Your task to perform on an android device: check data usage Image 0: 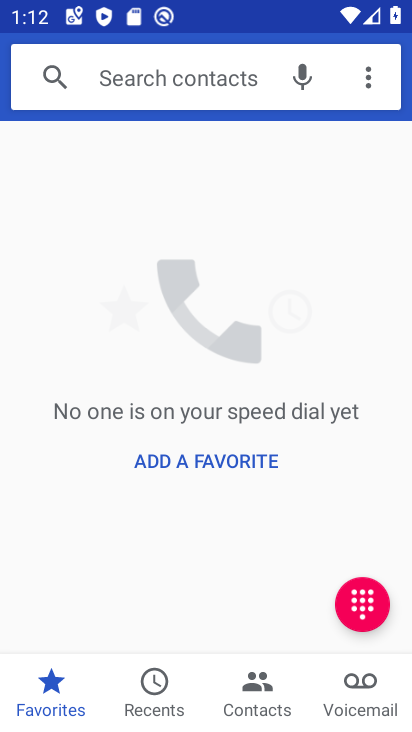
Step 0: press home button
Your task to perform on an android device: check data usage Image 1: 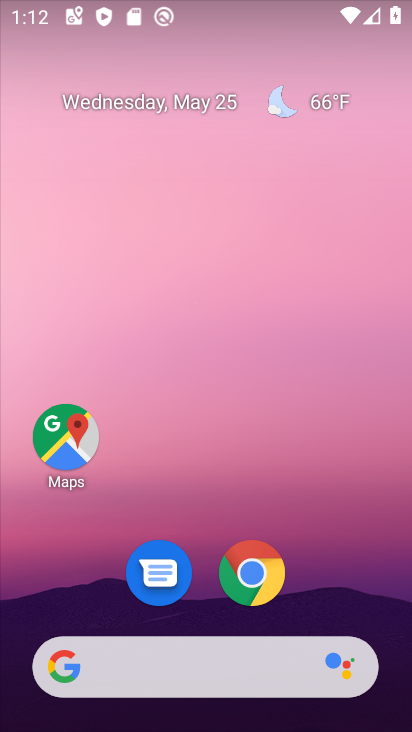
Step 1: drag from (377, 614) to (334, 61)
Your task to perform on an android device: check data usage Image 2: 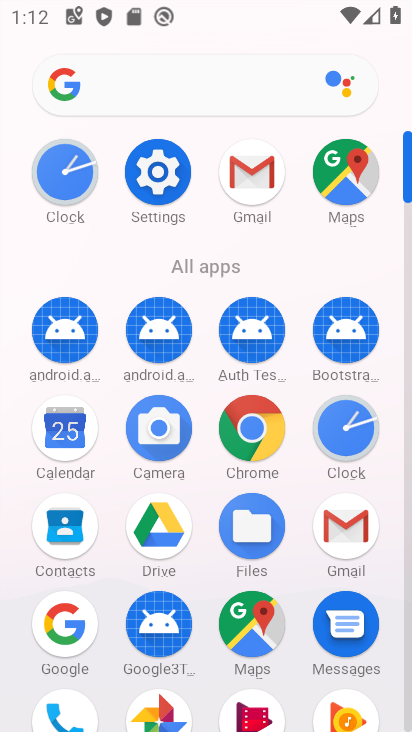
Step 2: click (404, 704)
Your task to perform on an android device: check data usage Image 3: 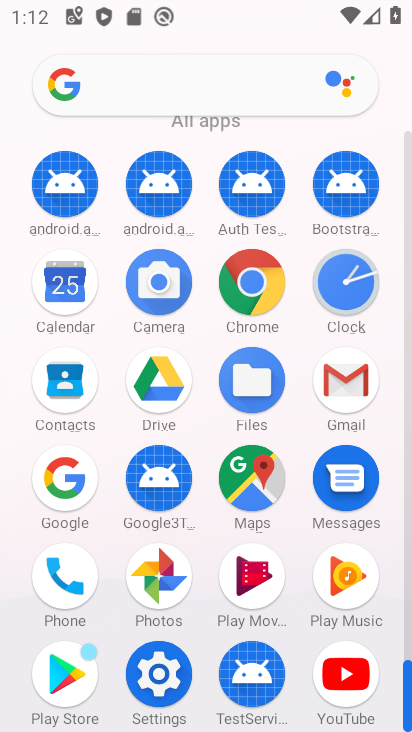
Step 3: click (162, 671)
Your task to perform on an android device: check data usage Image 4: 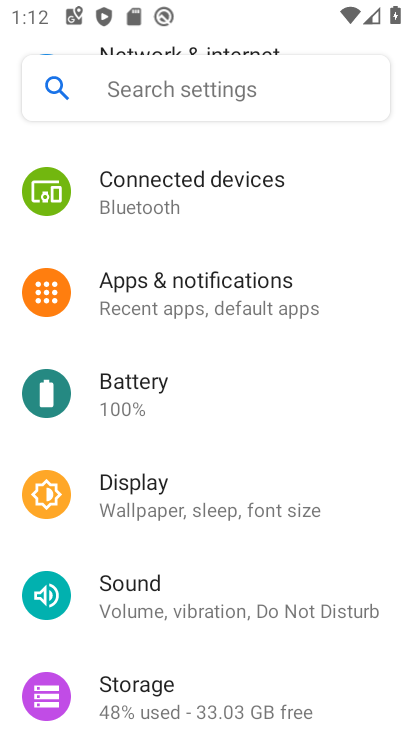
Step 4: drag from (377, 176) to (336, 531)
Your task to perform on an android device: check data usage Image 5: 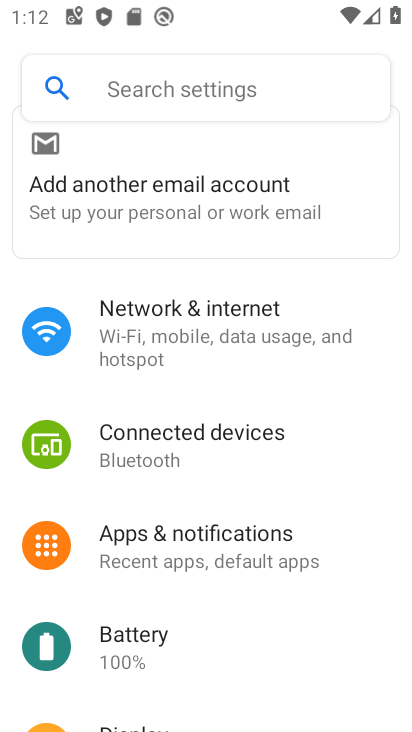
Step 5: click (152, 309)
Your task to perform on an android device: check data usage Image 6: 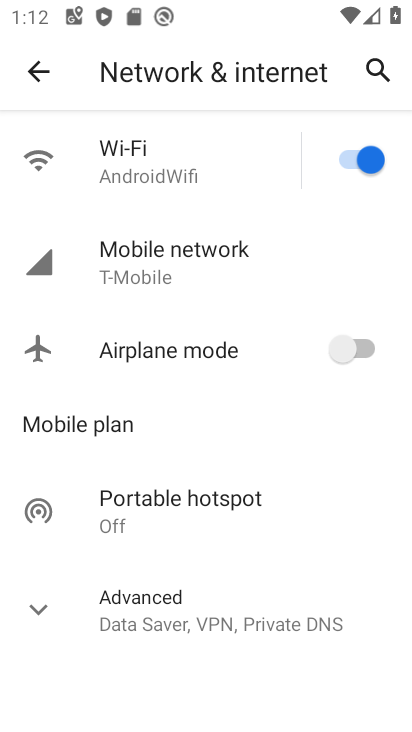
Step 6: click (44, 609)
Your task to perform on an android device: check data usage Image 7: 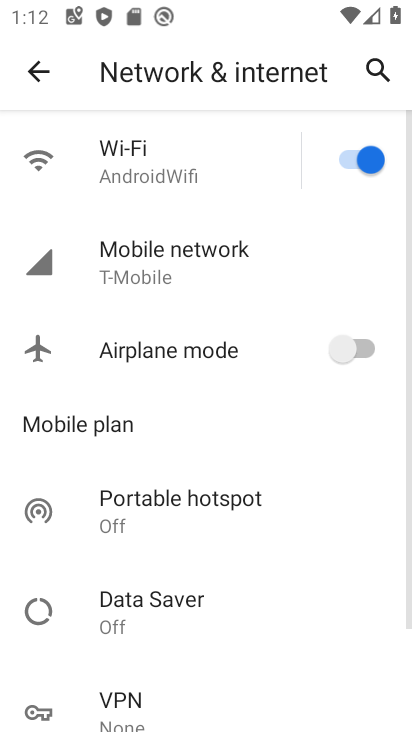
Step 7: drag from (236, 632) to (258, 350)
Your task to perform on an android device: check data usage Image 8: 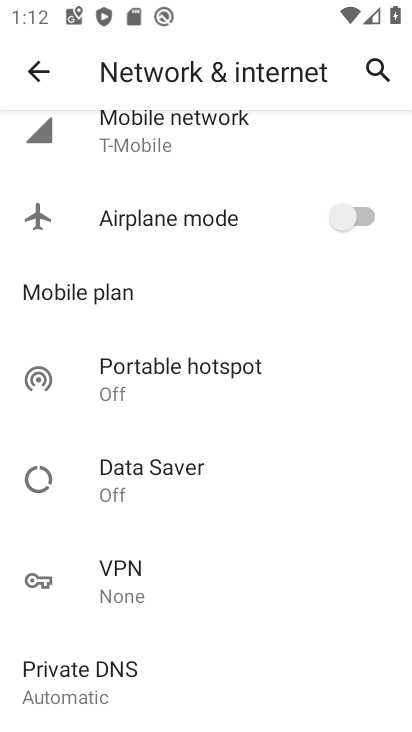
Step 8: drag from (258, 350) to (241, 618)
Your task to perform on an android device: check data usage Image 9: 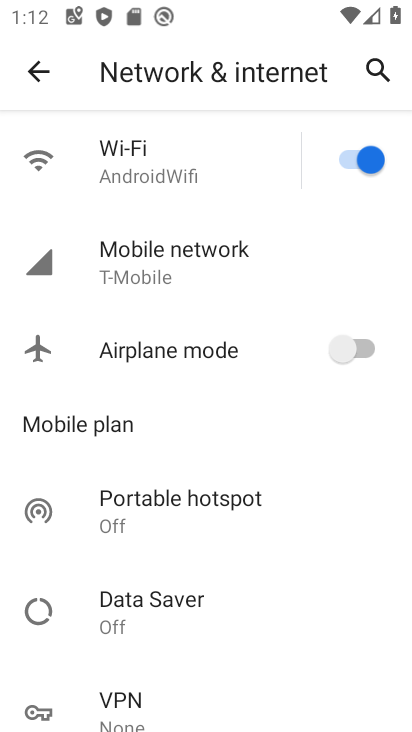
Step 9: click (151, 233)
Your task to perform on an android device: check data usage Image 10: 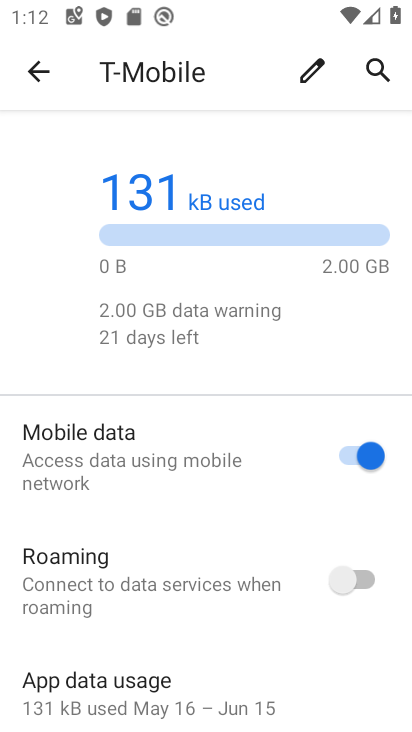
Step 10: task complete